Your task to perform on an android device: change the clock display to analog Image 0: 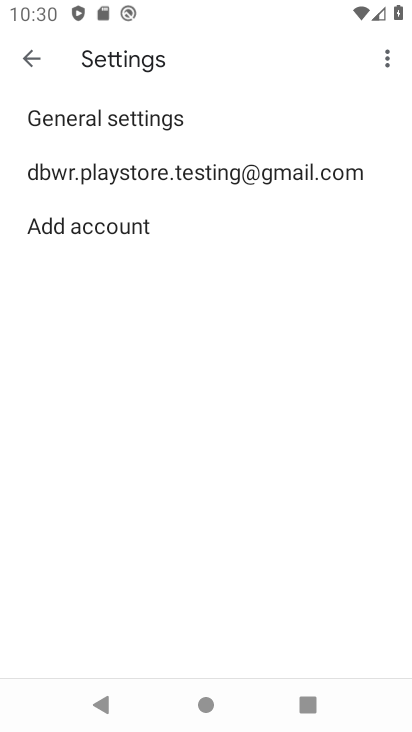
Step 0: press home button
Your task to perform on an android device: change the clock display to analog Image 1: 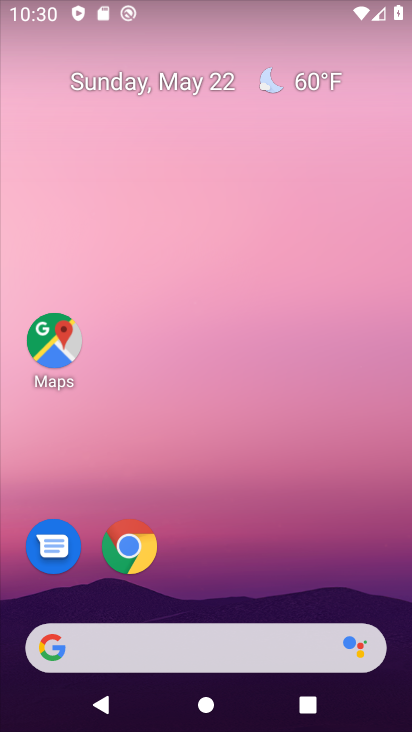
Step 1: drag from (227, 724) to (236, 68)
Your task to perform on an android device: change the clock display to analog Image 2: 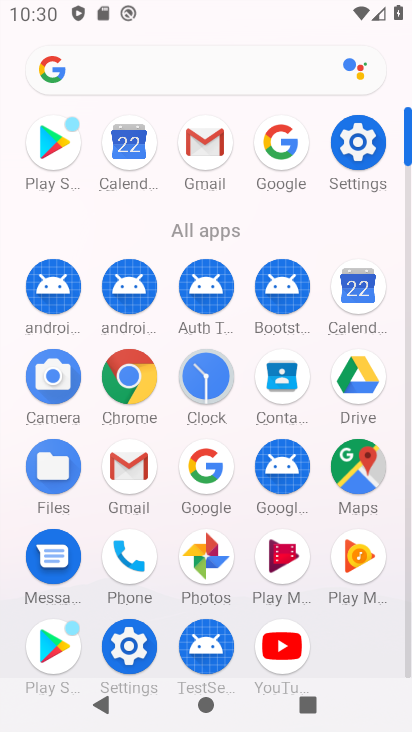
Step 2: click (210, 377)
Your task to perform on an android device: change the clock display to analog Image 3: 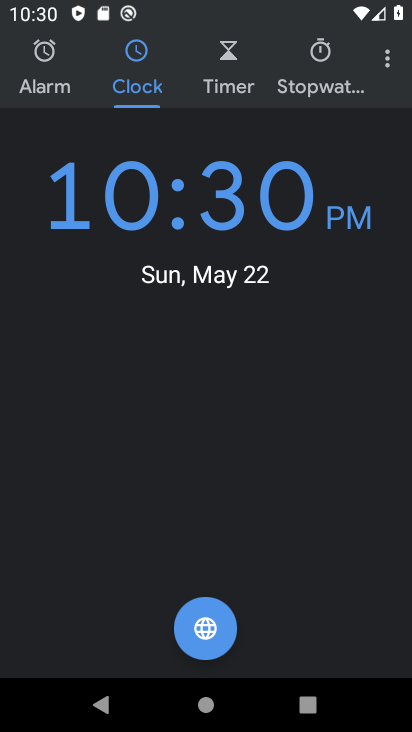
Step 3: click (390, 68)
Your task to perform on an android device: change the clock display to analog Image 4: 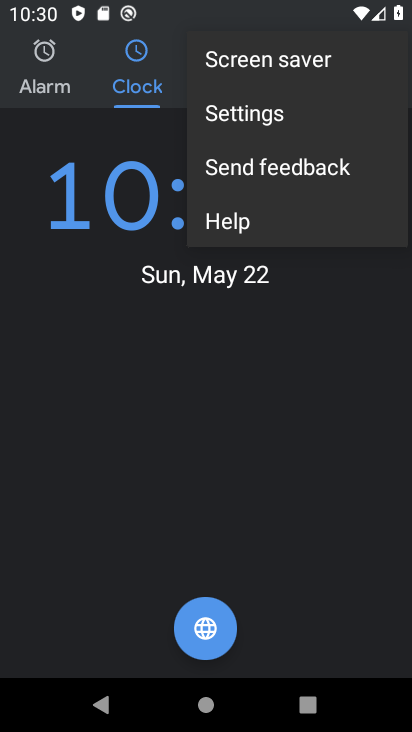
Step 4: click (223, 117)
Your task to perform on an android device: change the clock display to analog Image 5: 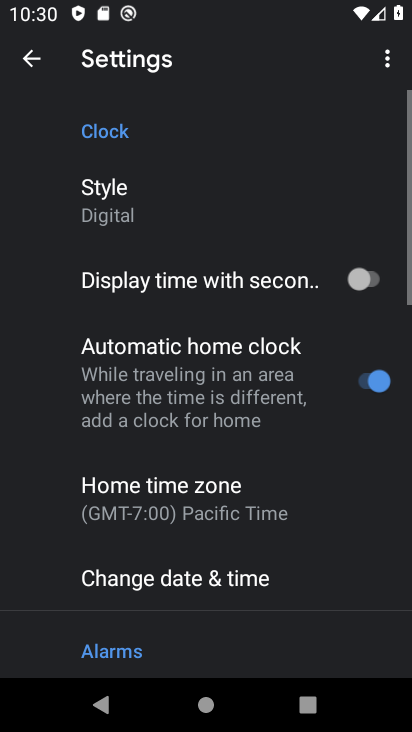
Step 5: click (112, 203)
Your task to perform on an android device: change the clock display to analog Image 6: 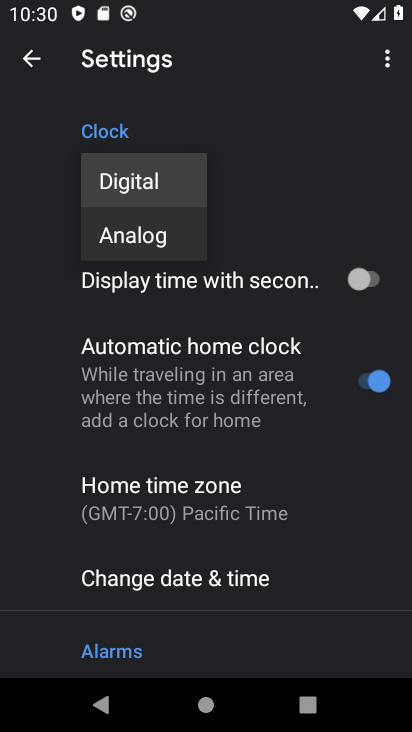
Step 6: click (114, 235)
Your task to perform on an android device: change the clock display to analog Image 7: 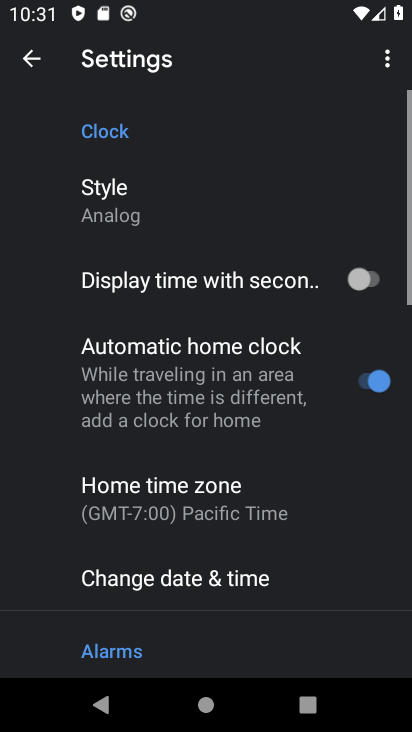
Step 7: task complete